Your task to perform on an android device: see creations saved in the google photos Image 0: 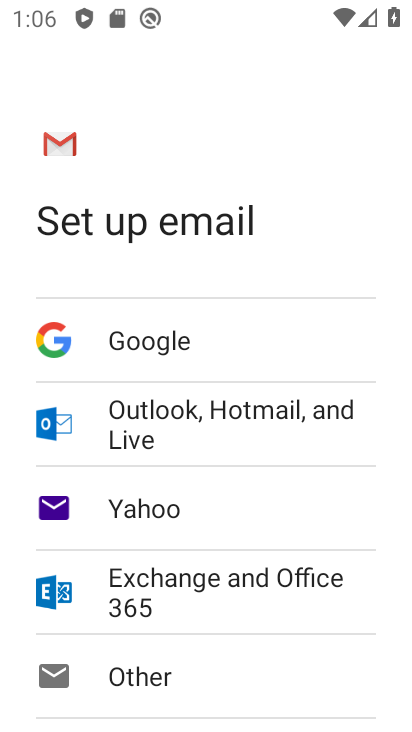
Step 0: press home button
Your task to perform on an android device: see creations saved in the google photos Image 1: 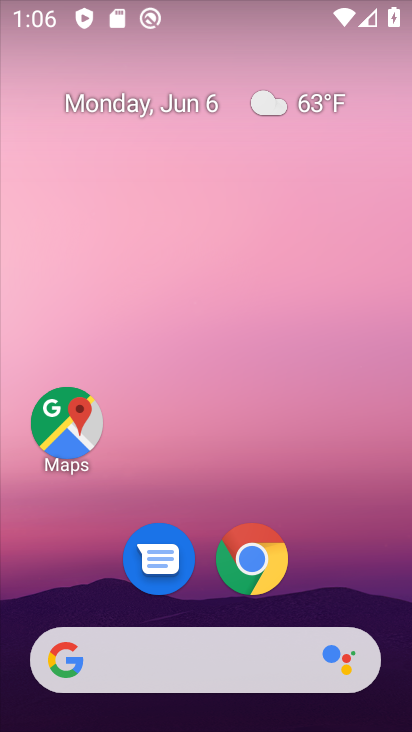
Step 1: drag from (325, 561) to (366, 159)
Your task to perform on an android device: see creations saved in the google photos Image 2: 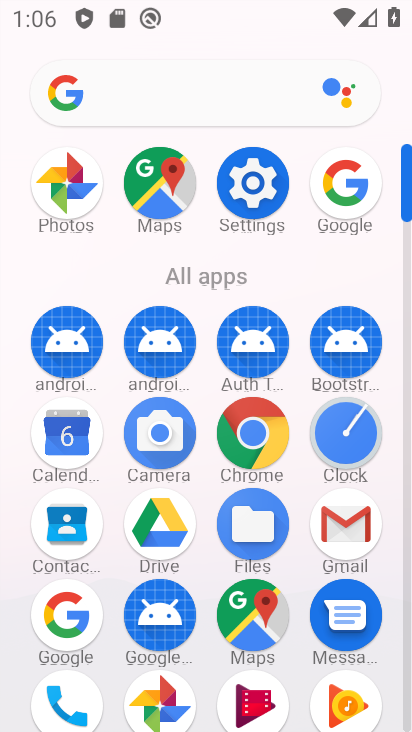
Step 2: drag from (292, 559) to (286, 267)
Your task to perform on an android device: see creations saved in the google photos Image 3: 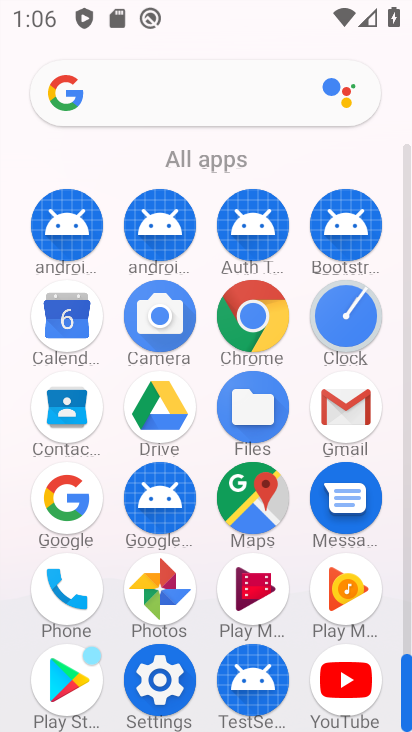
Step 3: drag from (152, 616) to (171, 307)
Your task to perform on an android device: see creations saved in the google photos Image 4: 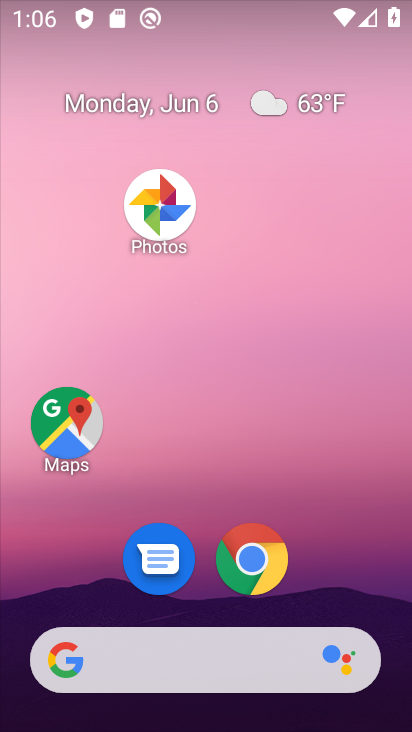
Step 4: click (170, 218)
Your task to perform on an android device: see creations saved in the google photos Image 5: 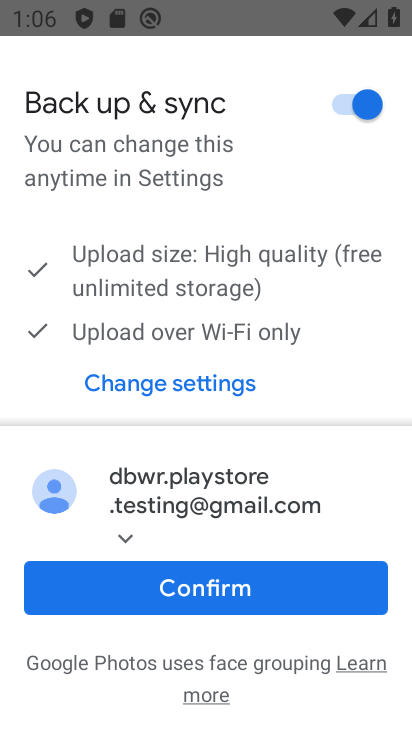
Step 5: click (248, 589)
Your task to perform on an android device: see creations saved in the google photos Image 6: 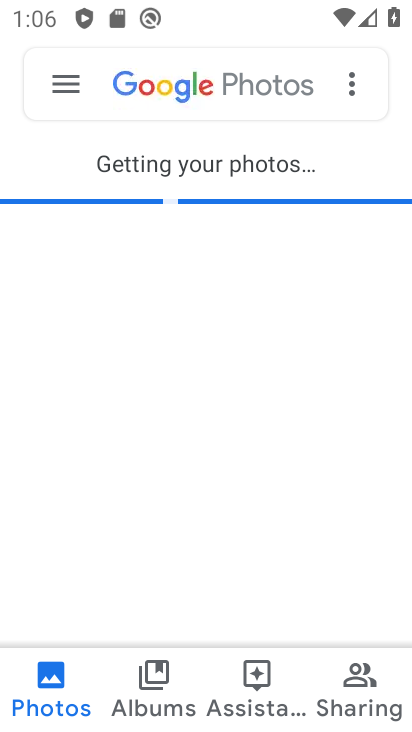
Step 6: click (40, 72)
Your task to perform on an android device: see creations saved in the google photos Image 7: 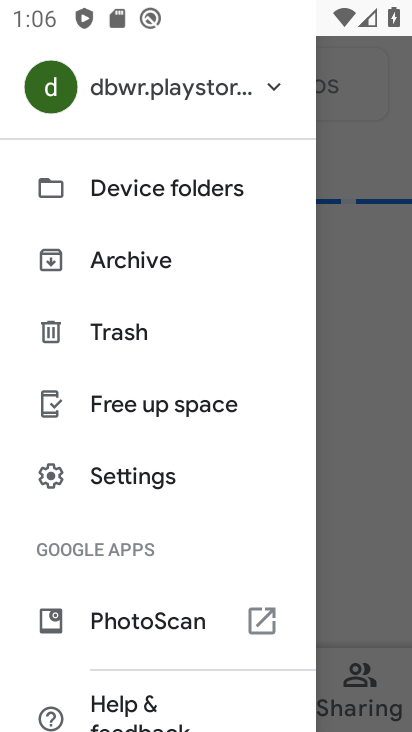
Step 7: click (335, 78)
Your task to perform on an android device: see creations saved in the google photos Image 8: 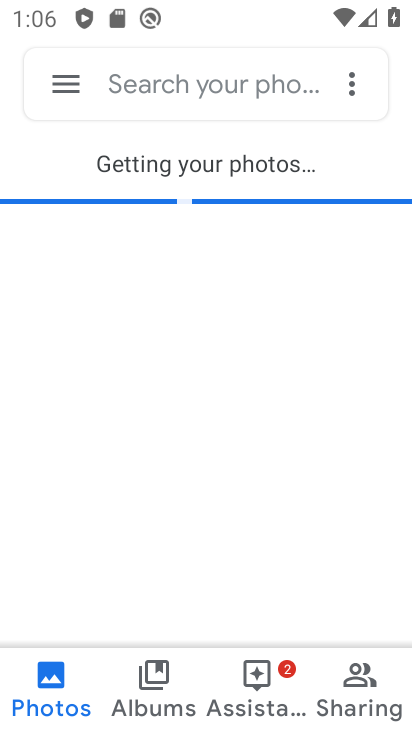
Step 8: click (335, 78)
Your task to perform on an android device: see creations saved in the google photos Image 9: 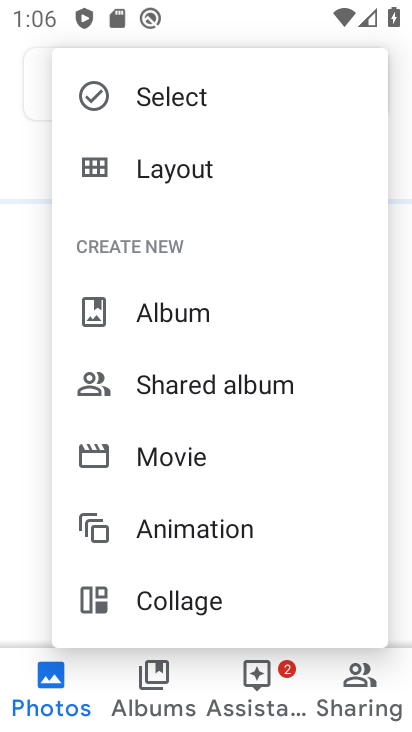
Step 9: drag from (229, 522) to (209, 196)
Your task to perform on an android device: see creations saved in the google photos Image 10: 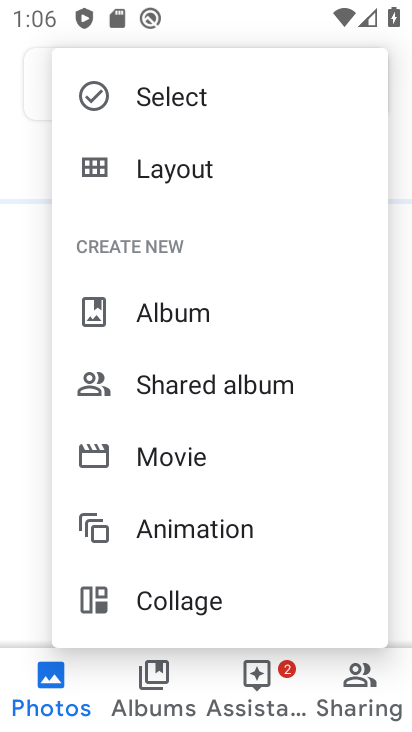
Step 10: drag from (222, 491) to (240, 123)
Your task to perform on an android device: see creations saved in the google photos Image 11: 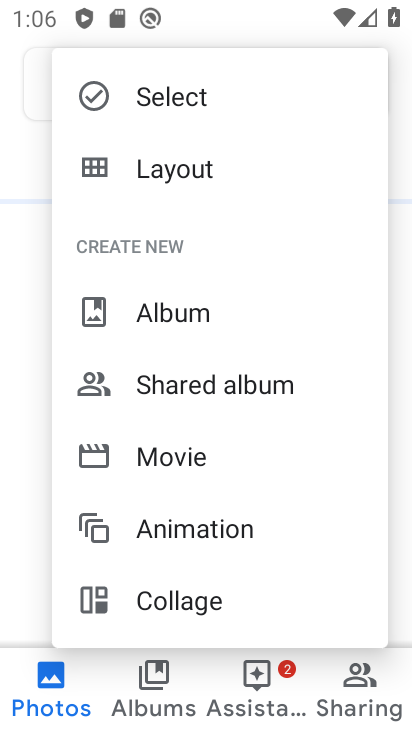
Step 11: drag from (273, 172) to (295, 510)
Your task to perform on an android device: see creations saved in the google photos Image 12: 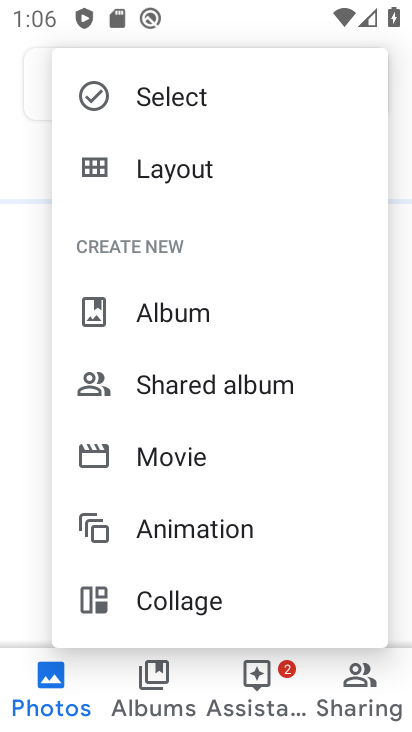
Step 12: drag from (235, 576) to (264, 169)
Your task to perform on an android device: see creations saved in the google photos Image 13: 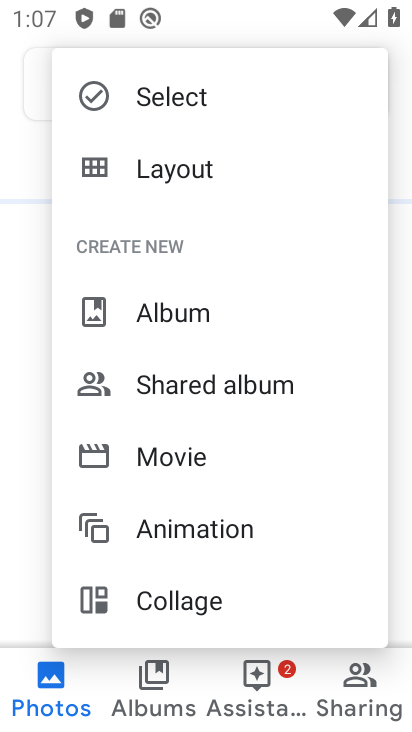
Step 13: drag from (291, 199) to (219, 513)
Your task to perform on an android device: see creations saved in the google photos Image 14: 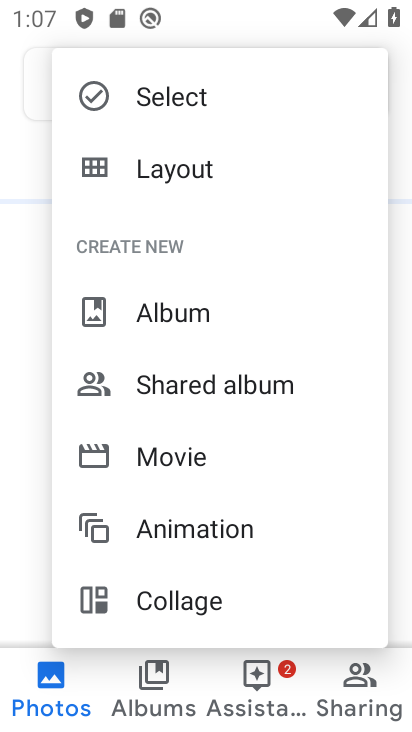
Step 14: drag from (194, 549) to (290, 116)
Your task to perform on an android device: see creations saved in the google photos Image 15: 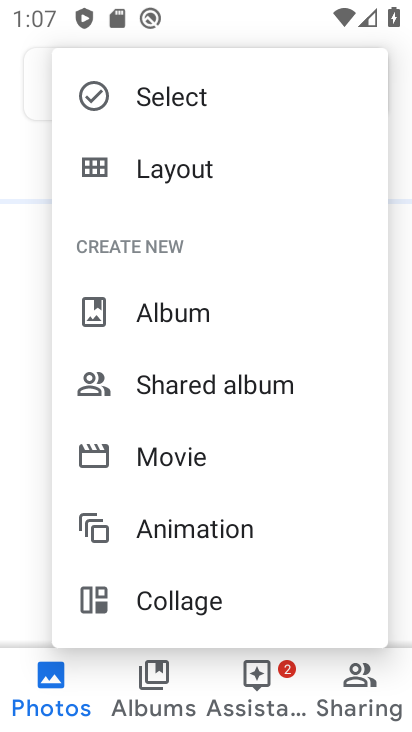
Step 15: press back button
Your task to perform on an android device: see creations saved in the google photos Image 16: 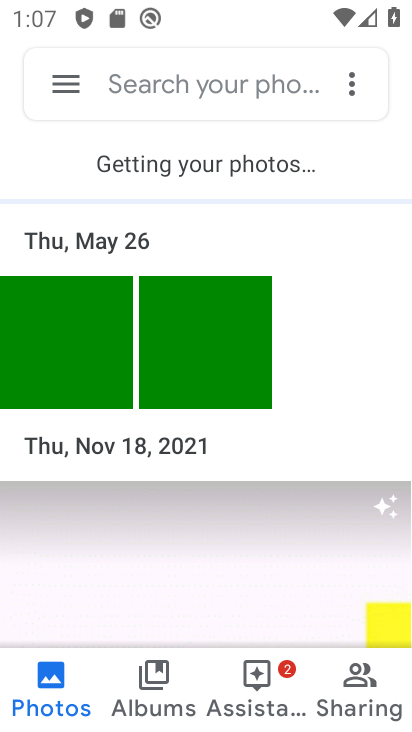
Step 16: click (42, 84)
Your task to perform on an android device: see creations saved in the google photos Image 17: 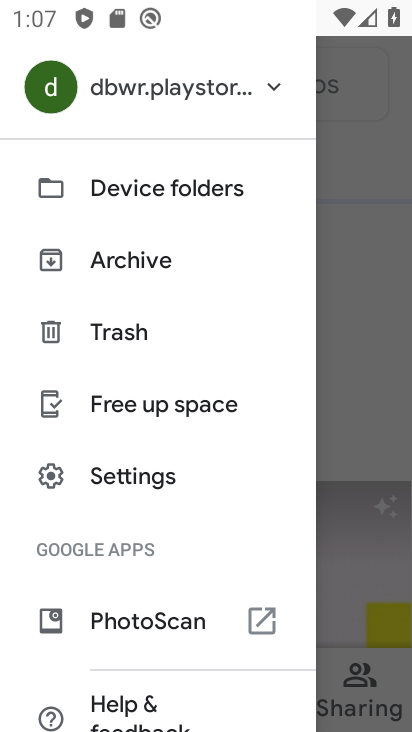
Step 17: drag from (112, 522) to (137, 228)
Your task to perform on an android device: see creations saved in the google photos Image 18: 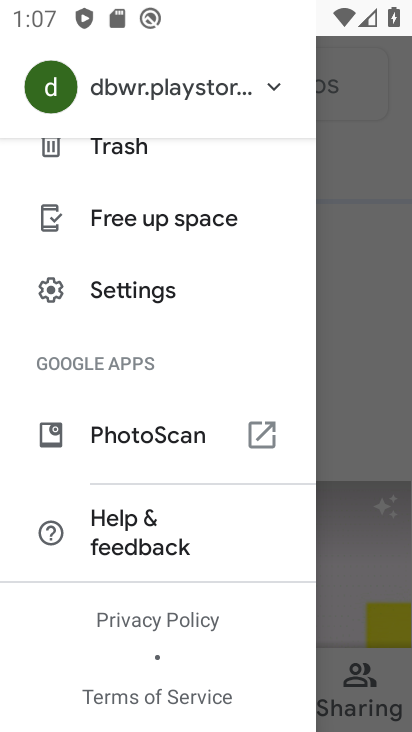
Step 18: click (357, 320)
Your task to perform on an android device: see creations saved in the google photos Image 19: 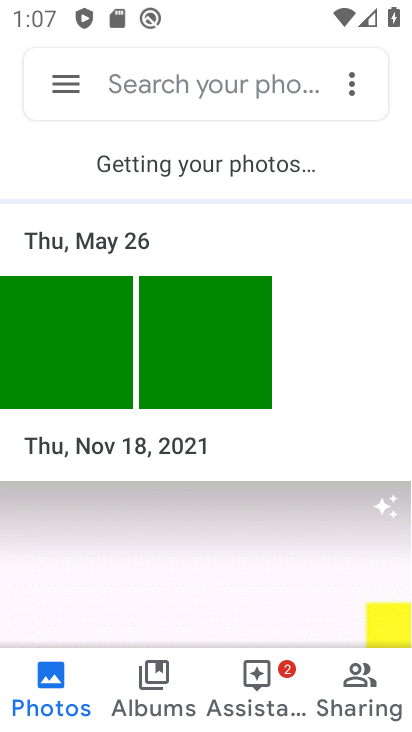
Step 19: click (295, 90)
Your task to perform on an android device: see creations saved in the google photos Image 20: 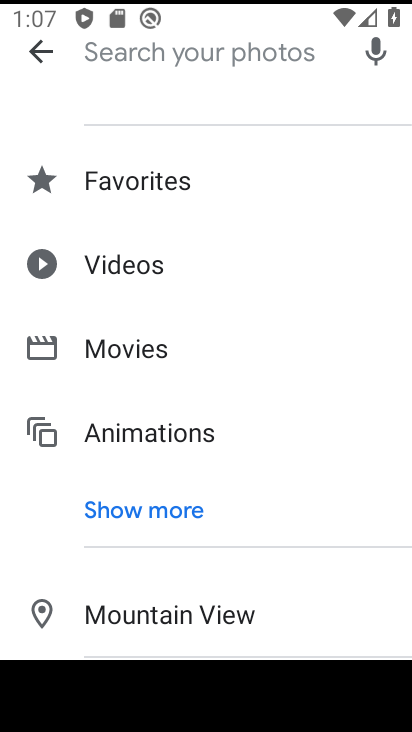
Step 20: click (213, 497)
Your task to perform on an android device: see creations saved in the google photos Image 21: 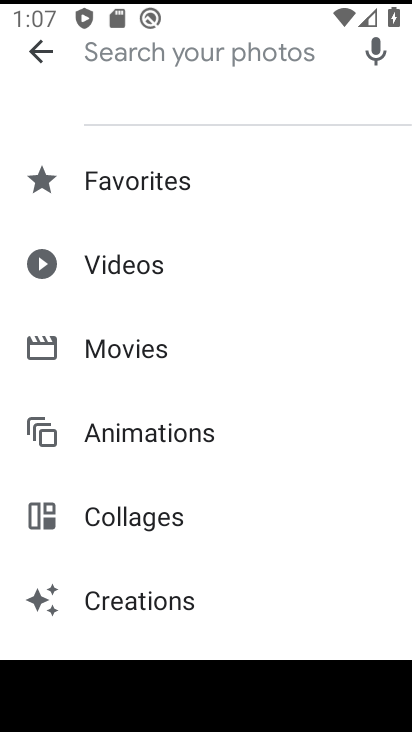
Step 21: click (167, 607)
Your task to perform on an android device: see creations saved in the google photos Image 22: 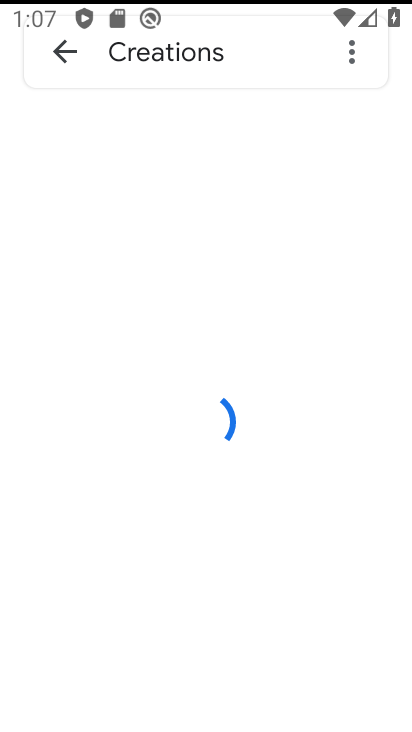
Step 22: task complete